Your task to perform on an android device: refresh tabs in the chrome app Image 0: 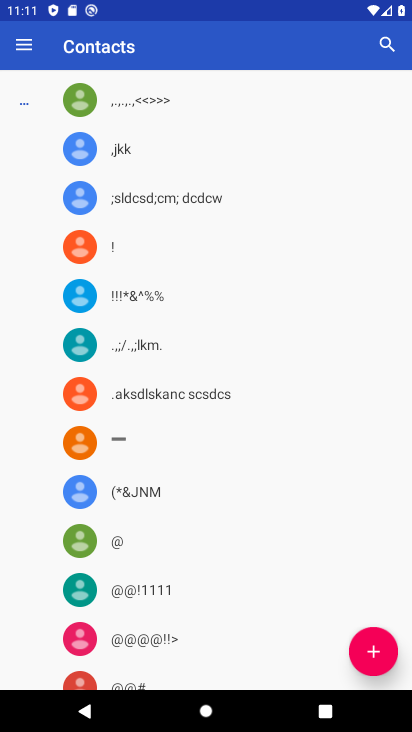
Step 0: press home button
Your task to perform on an android device: refresh tabs in the chrome app Image 1: 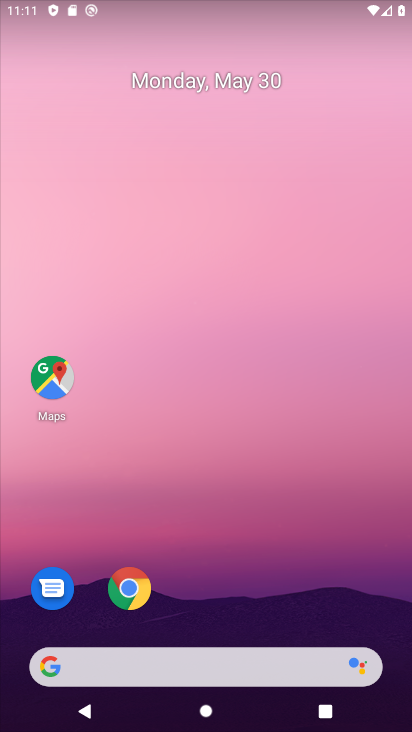
Step 1: click (130, 597)
Your task to perform on an android device: refresh tabs in the chrome app Image 2: 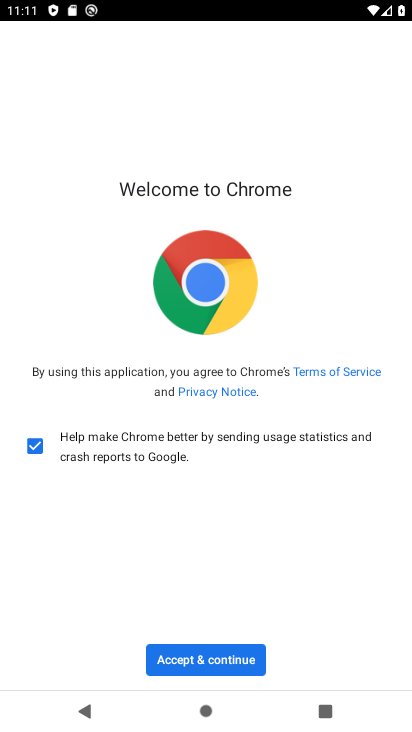
Step 2: click (176, 652)
Your task to perform on an android device: refresh tabs in the chrome app Image 3: 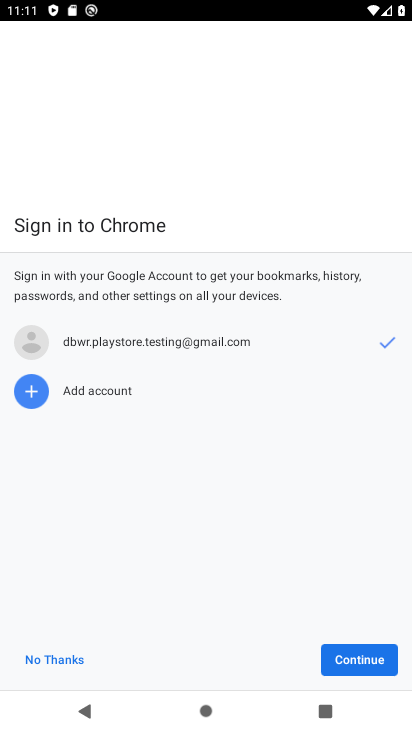
Step 3: click (363, 665)
Your task to perform on an android device: refresh tabs in the chrome app Image 4: 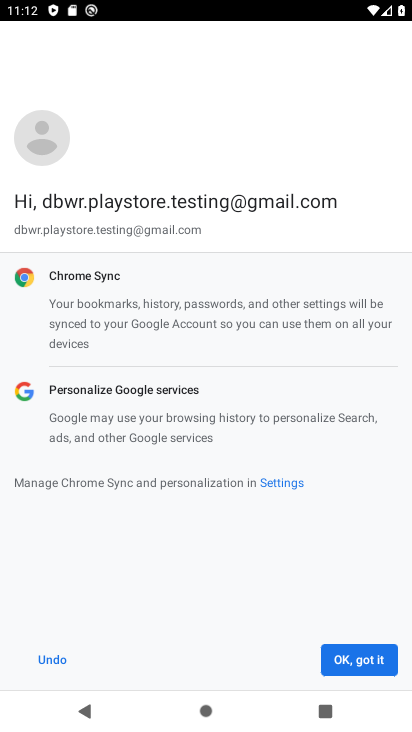
Step 4: click (362, 665)
Your task to perform on an android device: refresh tabs in the chrome app Image 5: 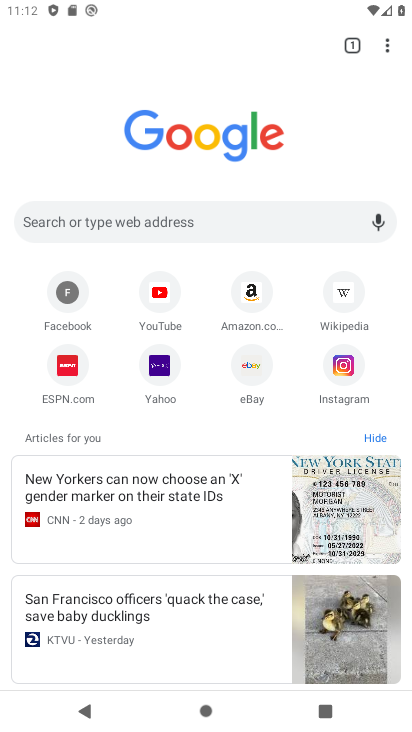
Step 5: click (389, 46)
Your task to perform on an android device: refresh tabs in the chrome app Image 6: 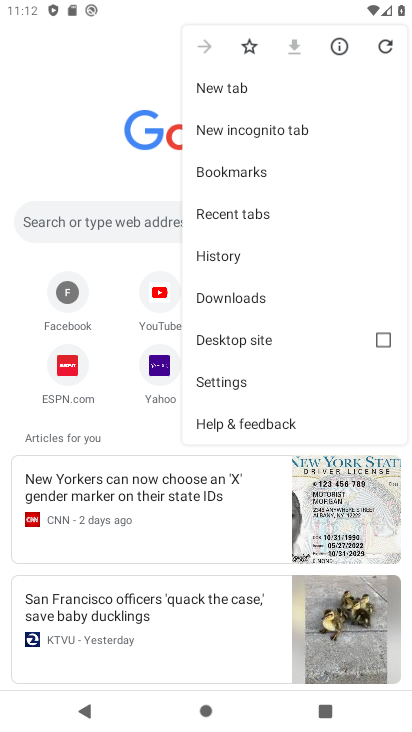
Step 6: click (386, 47)
Your task to perform on an android device: refresh tabs in the chrome app Image 7: 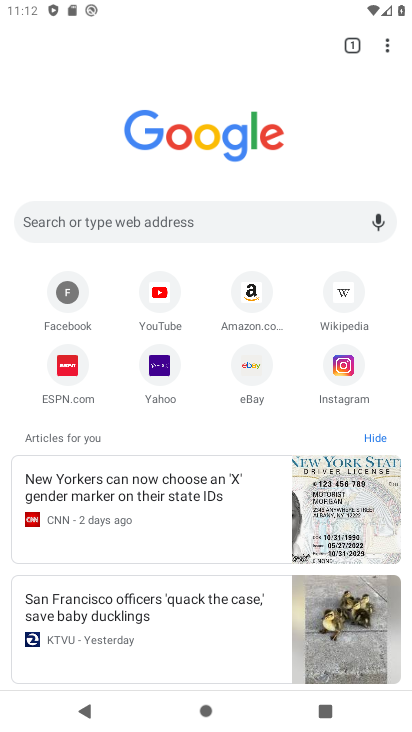
Step 7: task complete